Your task to perform on an android device: Open calendar and show me the fourth week of next month Image 0: 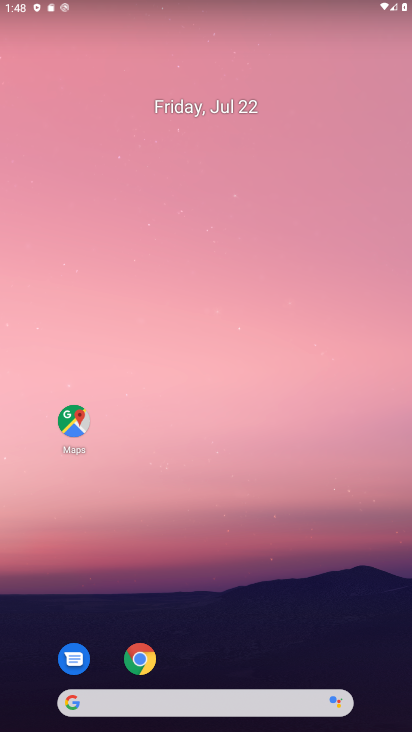
Step 0: click (158, 647)
Your task to perform on an android device: Open calendar and show me the fourth week of next month Image 1: 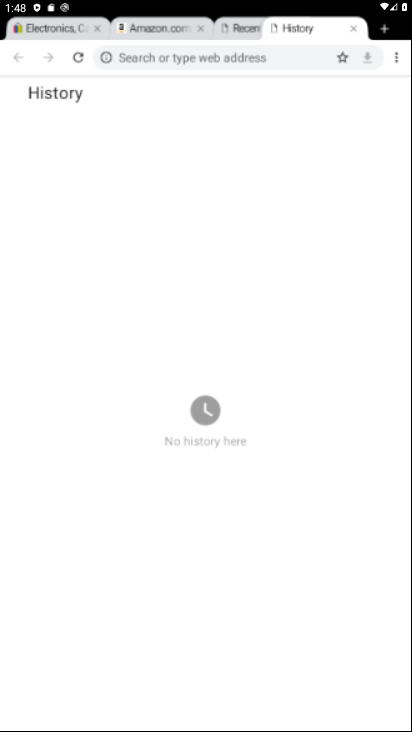
Step 1: task complete